Your task to perform on an android device: change the upload size in google photos Image 0: 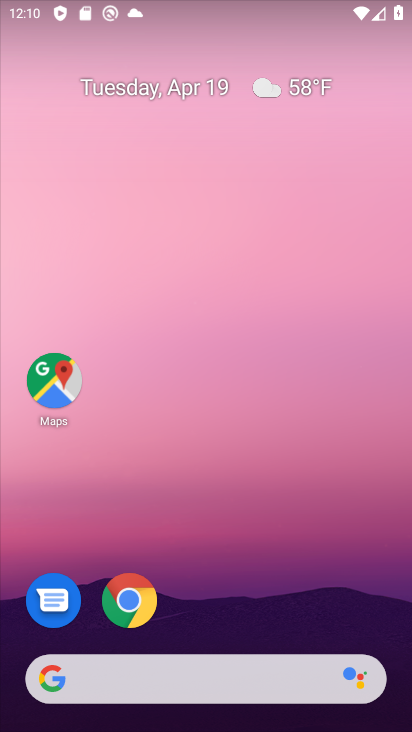
Step 0: drag from (362, 625) to (254, 122)
Your task to perform on an android device: change the upload size in google photos Image 1: 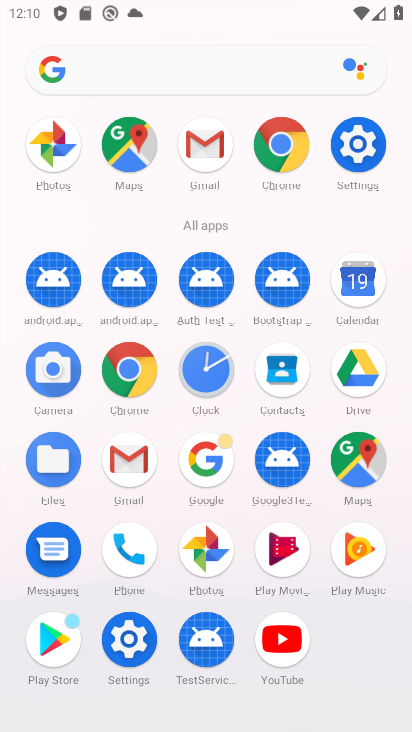
Step 1: click (51, 145)
Your task to perform on an android device: change the upload size in google photos Image 2: 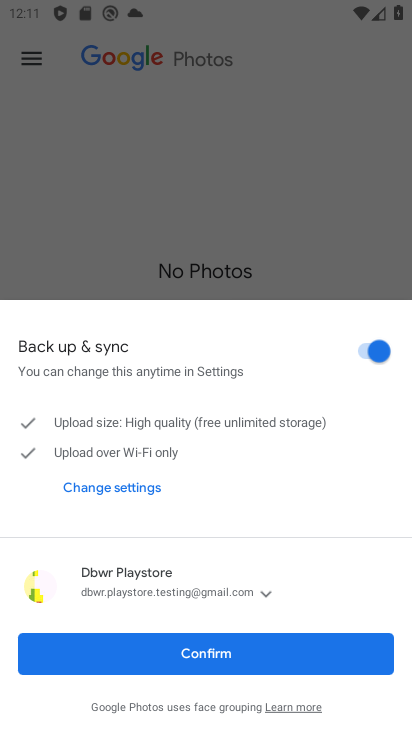
Step 2: click (276, 661)
Your task to perform on an android device: change the upload size in google photos Image 3: 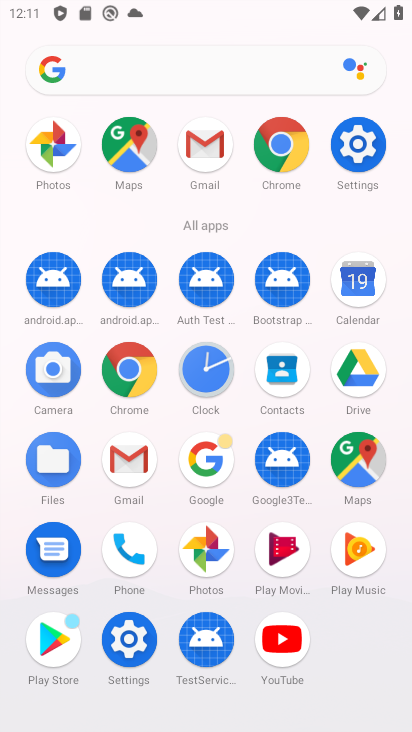
Step 3: click (48, 150)
Your task to perform on an android device: change the upload size in google photos Image 4: 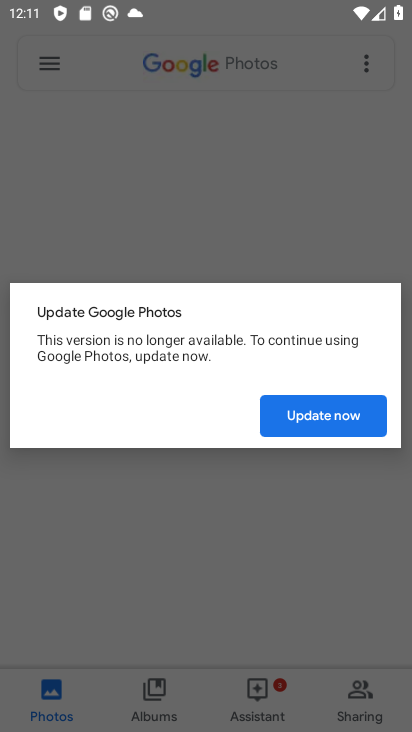
Step 4: click (304, 415)
Your task to perform on an android device: change the upload size in google photos Image 5: 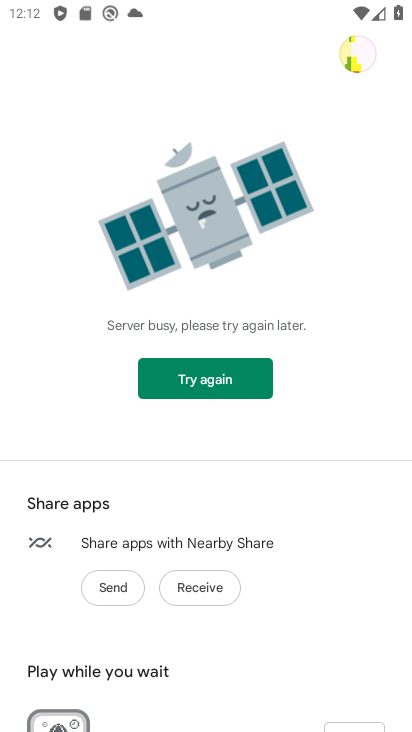
Step 5: task complete